Your task to perform on an android device: turn notification dots off Image 0: 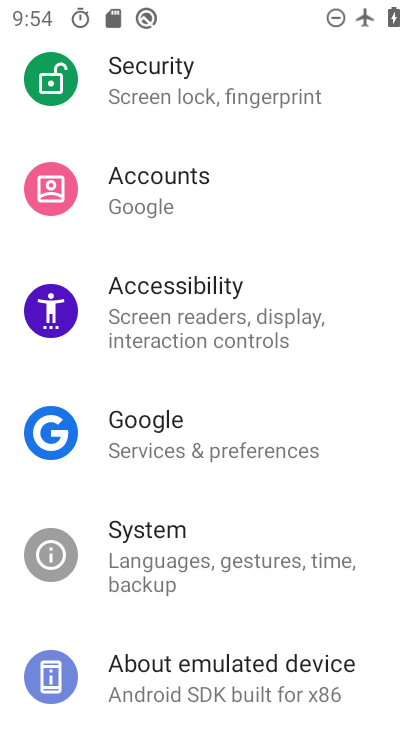
Step 0: drag from (179, 221) to (169, 601)
Your task to perform on an android device: turn notification dots off Image 1: 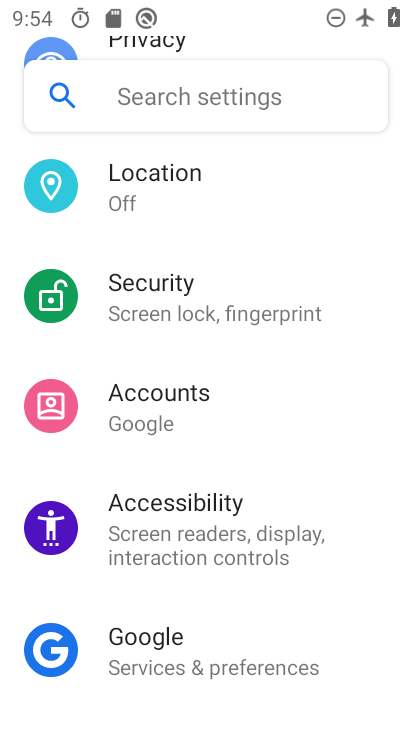
Step 1: drag from (233, 277) to (219, 637)
Your task to perform on an android device: turn notification dots off Image 2: 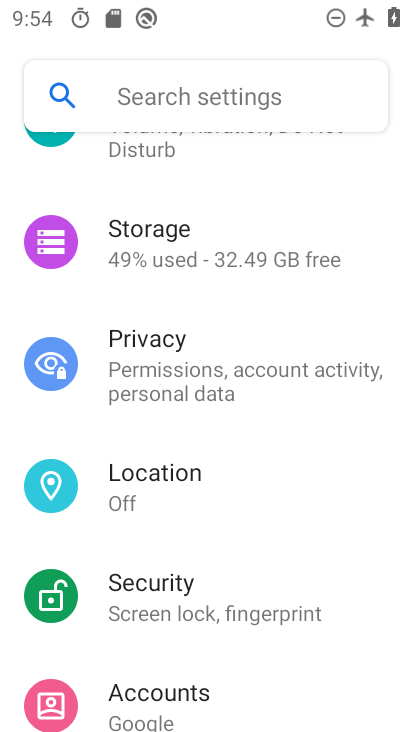
Step 2: drag from (213, 583) to (213, 625)
Your task to perform on an android device: turn notification dots off Image 3: 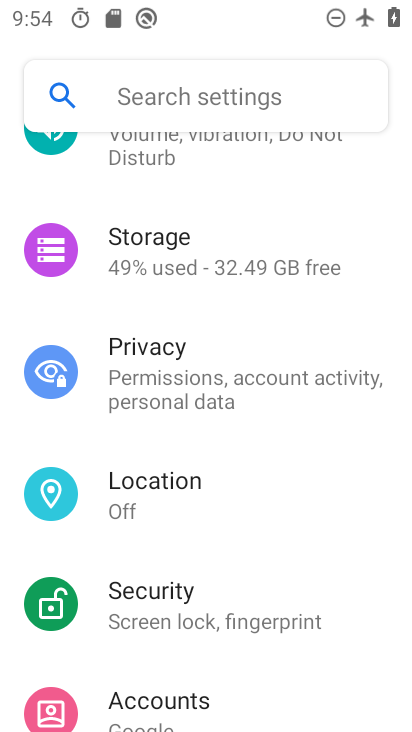
Step 3: drag from (237, 316) to (239, 567)
Your task to perform on an android device: turn notification dots off Image 4: 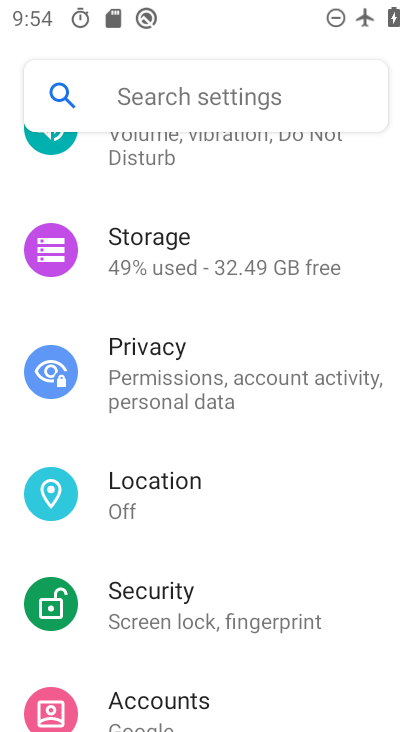
Step 4: drag from (216, 345) to (216, 651)
Your task to perform on an android device: turn notification dots off Image 5: 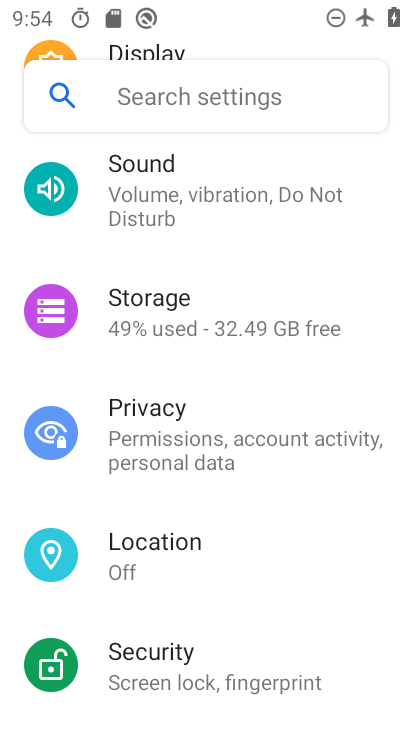
Step 5: drag from (227, 574) to (227, 610)
Your task to perform on an android device: turn notification dots off Image 6: 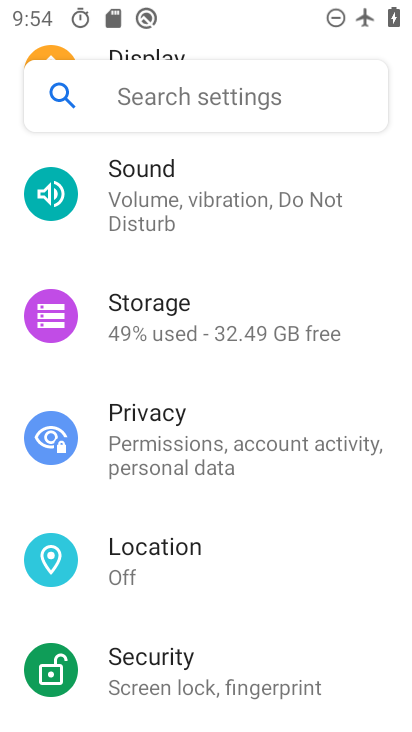
Step 6: drag from (200, 246) to (200, 606)
Your task to perform on an android device: turn notification dots off Image 7: 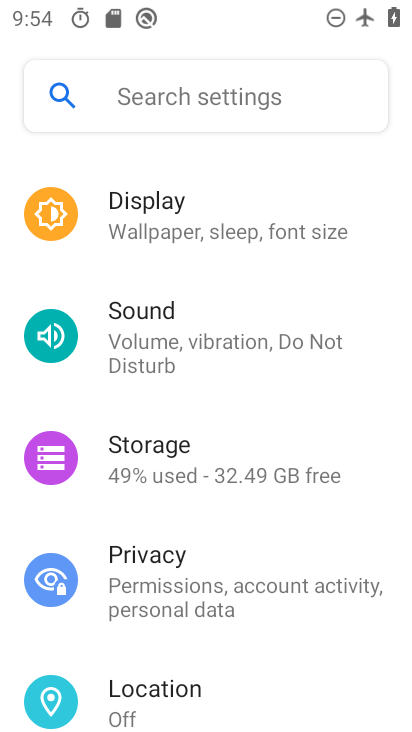
Step 7: drag from (210, 372) to (210, 635)
Your task to perform on an android device: turn notification dots off Image 8: 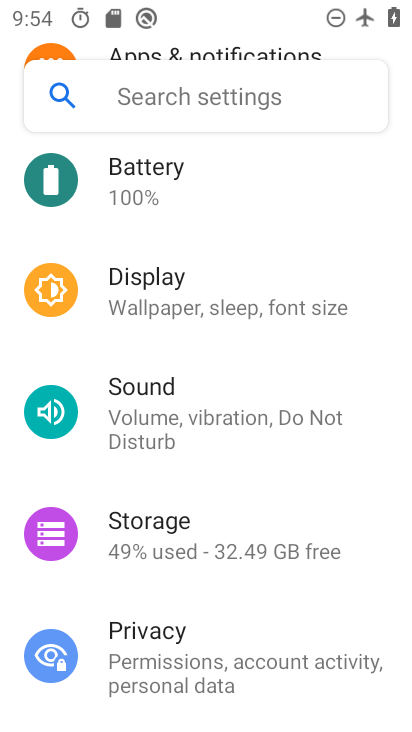
Step 8: drag from (245, 270) to (245, 633)
Your task to perform on an android device: turn notification dots off Image 9: 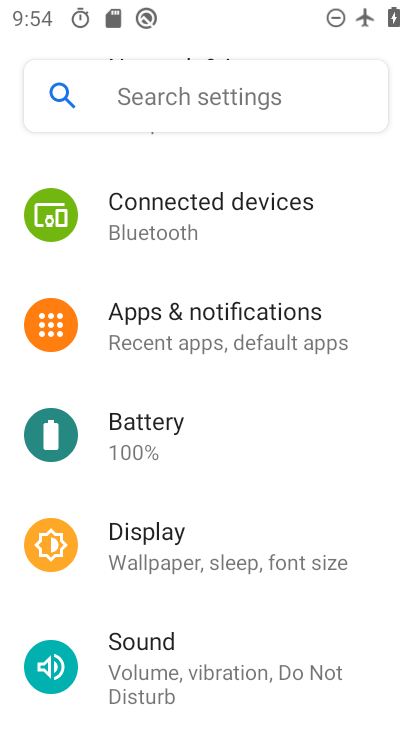
Step 9: click (228, 350)
Your task to perform on an android device: turn notification dots off Image 10: 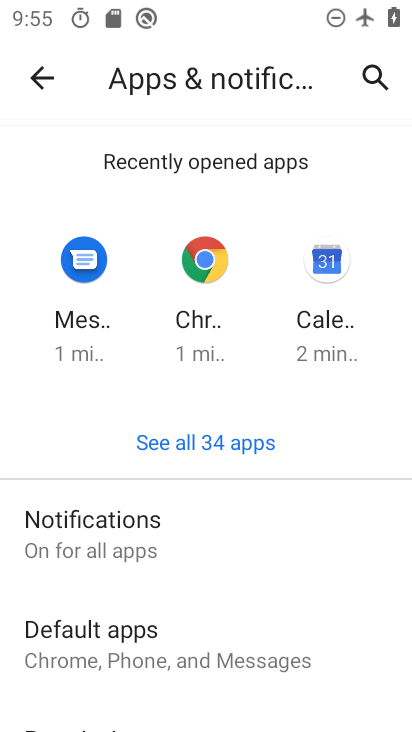
Step 10: click (104, 530)
Your task to perform on an android device: turn notification dots off Image 11: 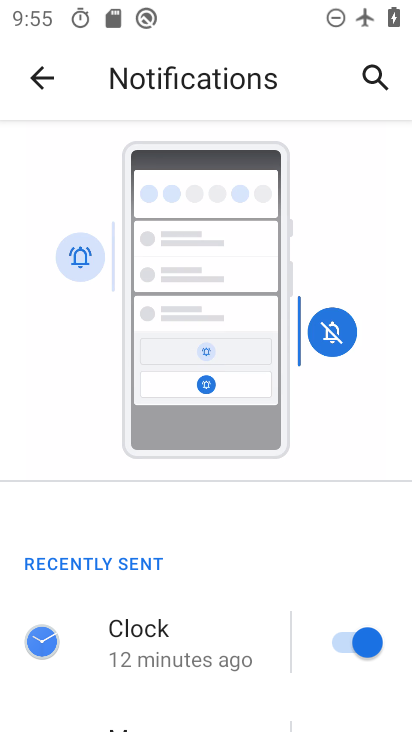
Step 11: drag from (230, 365) to (247, 153)
Your task to perform on an android device: turn notification dots off Image 12: 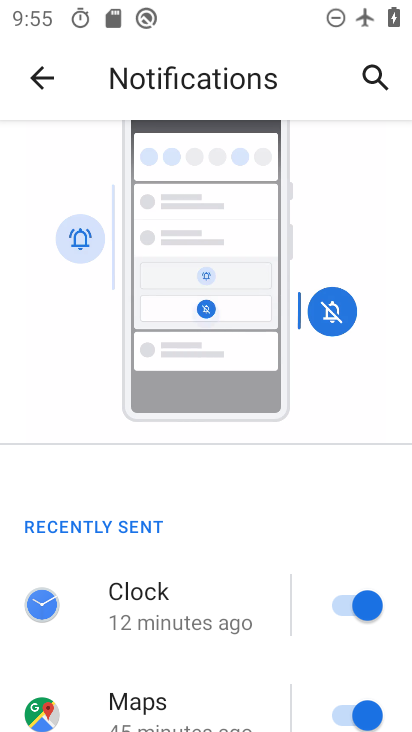
Step 12: drag from (247, 518) to (253, 148)
Your task to perform on an android device: turn notification dots off Image 13: 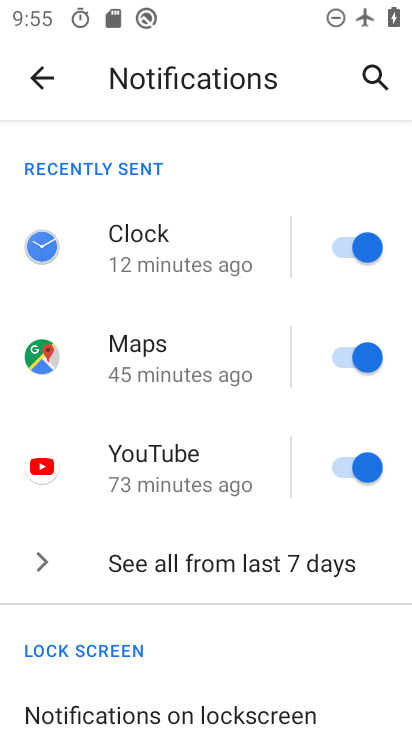
Step 13: drag from (231, 685) to (223, 291)
Your task to perform on an android device: turn notification dots off Image 14: 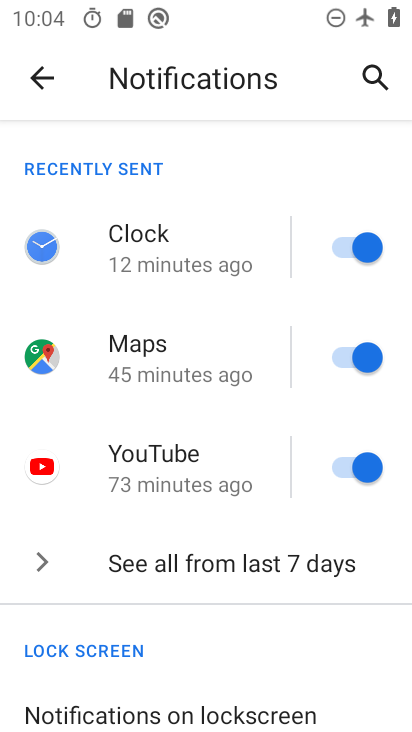
Step 14: press home button
Your task to perform on an android device: turn notification dots off Image 15: 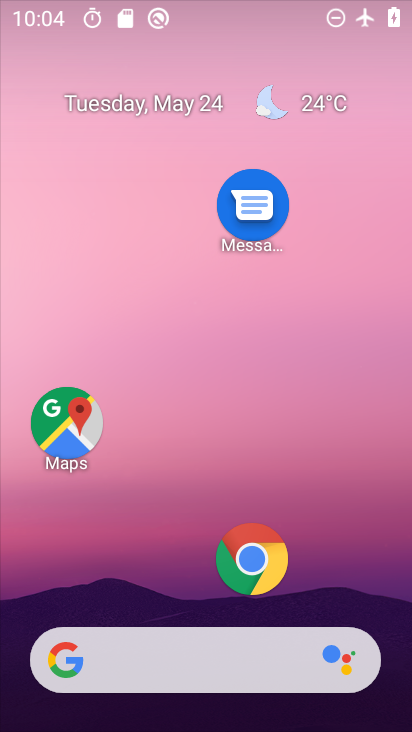
Step 15: drag from (184, 583) to (175, 127)
Your task to perform on an android device: turn notification dots off Image 16: 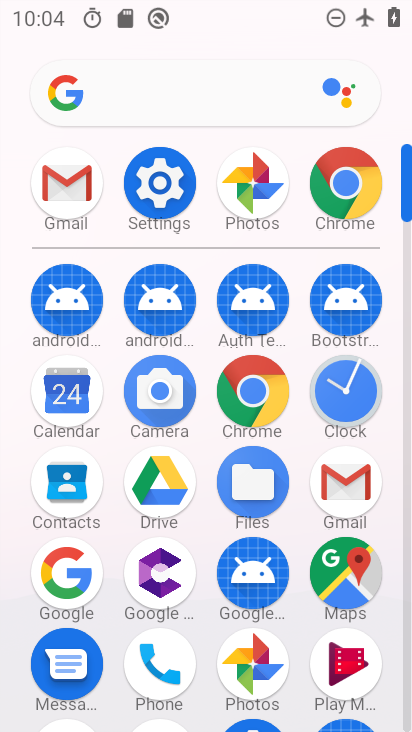
Step 16: click (174, 192)
Your task to perform on an android device: turn notification dots off Image 17: 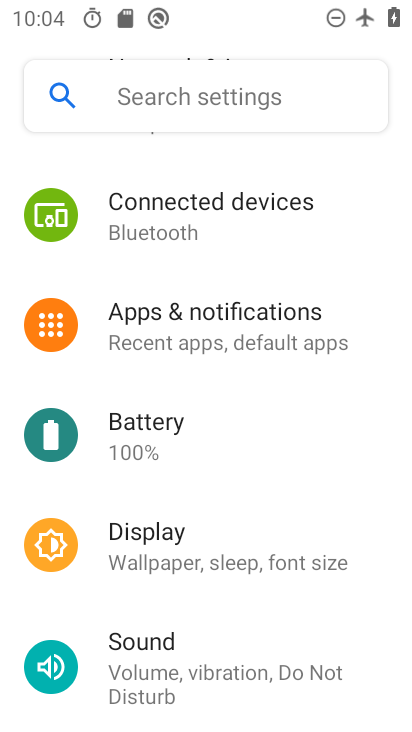
Step 17: click (238, 327)
Your task to perform on an android device: turn notification dots off Image 18: 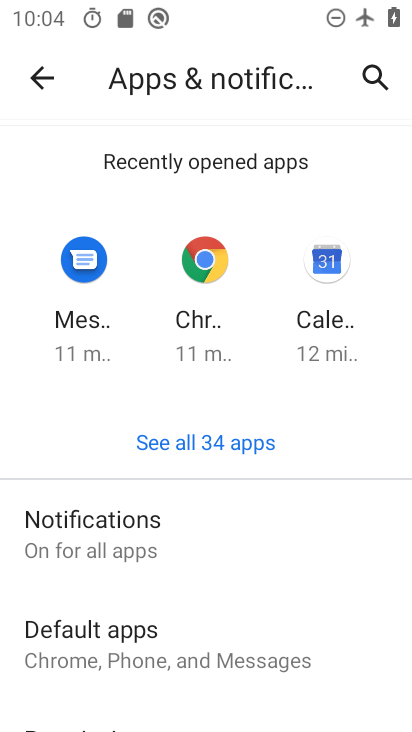
Step 18: click (103, 538)
Your task to perform on an android device: turn notification dots off Image 19: 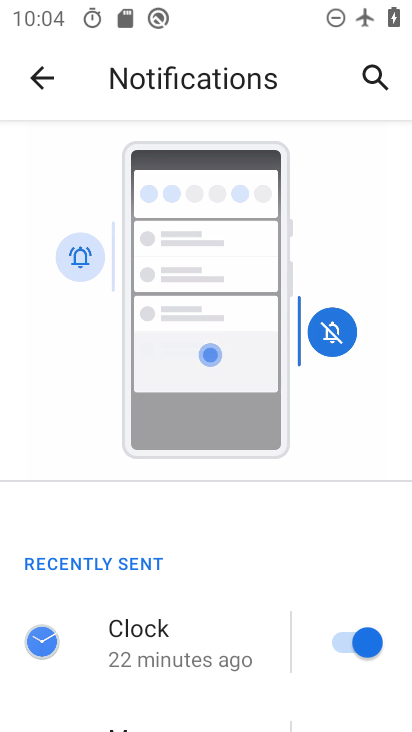
Step 19: drag from (212, 627) to (214, 191)
Your task to perform on an android device: turn notification dots off Image 20: 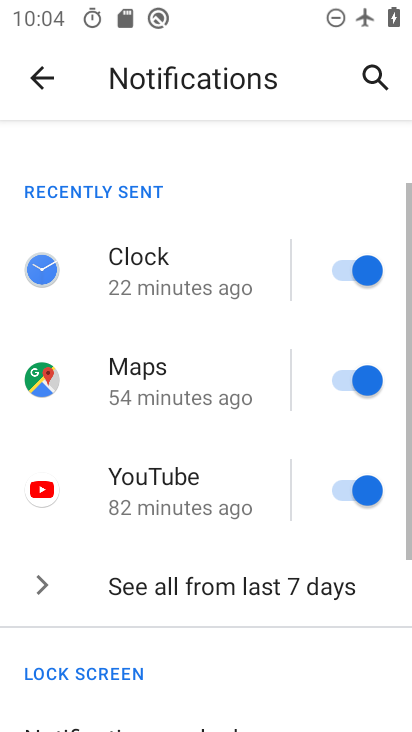
Step 20: drag from (242, 640) to (248, 278)
Your task to perform on an android device: turn notification dots off Image 21: 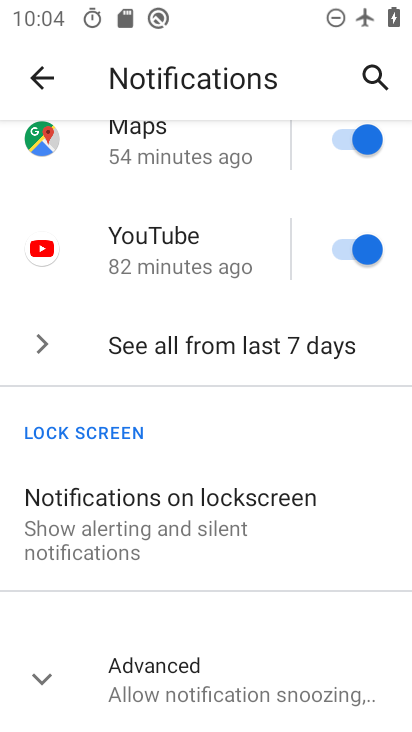
Step 21: drag from (238, 621) to (235, 274)
Your task to perform on an android device: turn notification dots off Image 22: 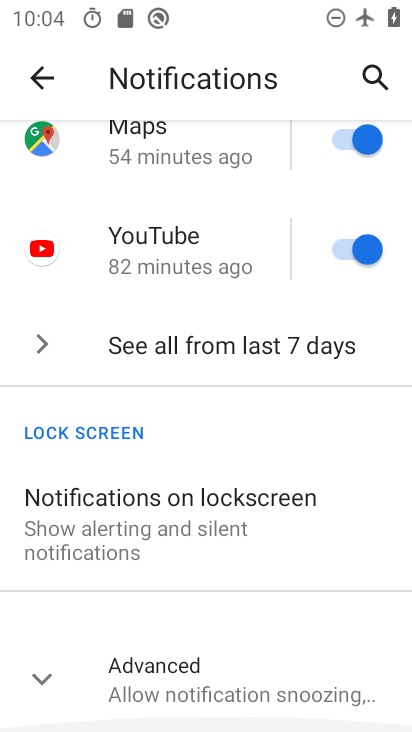
Step 22: click (206, 671)
Your task to perform on an android device: turn notification dots off Image 23: 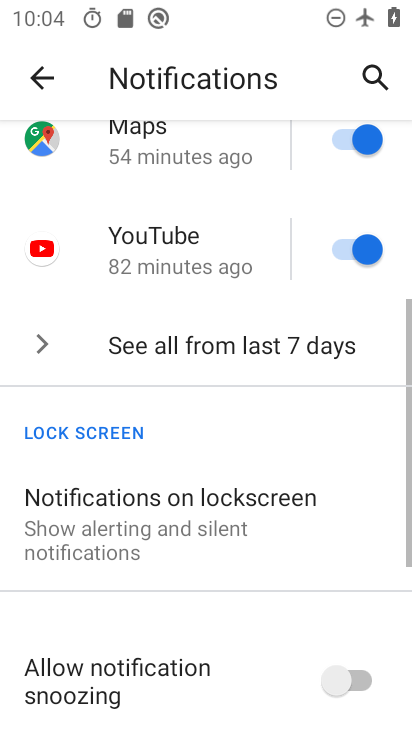
Step 23: drag from (206, 671) to (247, 249)
Your task to perform on an android device: turn notification dots off Image 24: 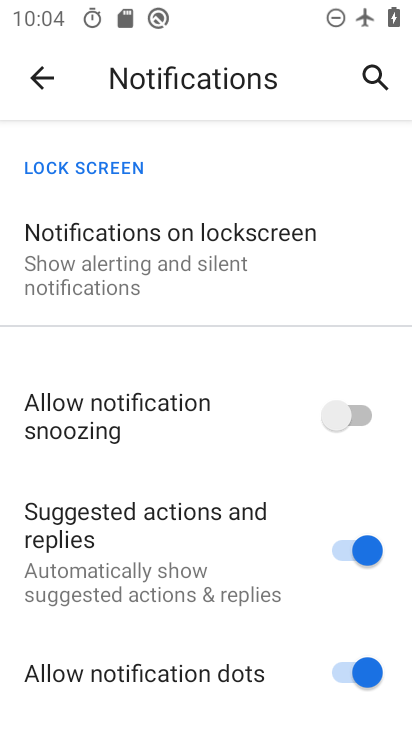
Step 24: click (352, 671)
Your task to perform on an android device: turn notification dots off Image 25: 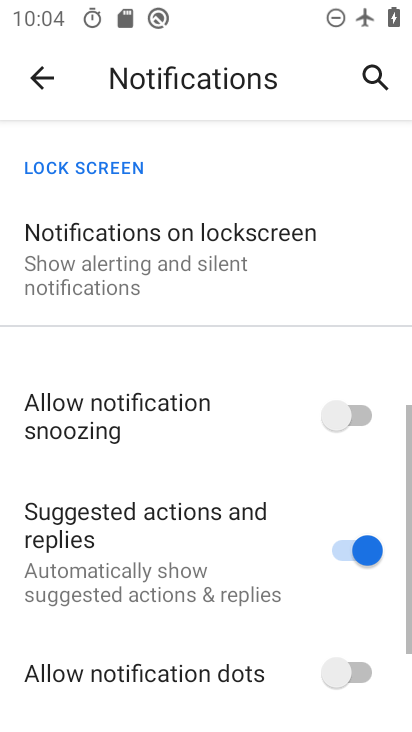
Step 25: task complete